Your task to perform on an android device: Open sound settings Image 0: 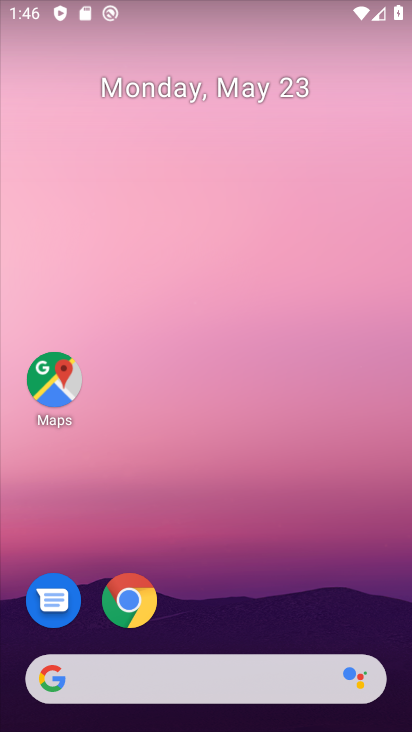
Step 0: drag from (224, 644) to (184, 393)
Your task to perform on an android device: Open sound settings Image 1: 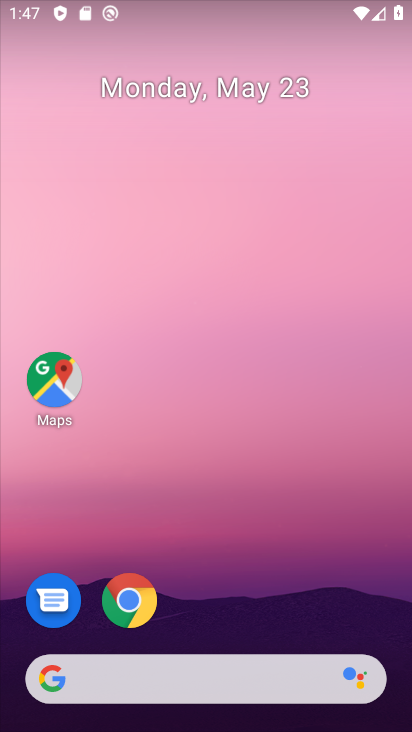
Step 1: drag from (220, 617) to (176, 66)
Your task to perform on an android device: Open sound settings Image 2: 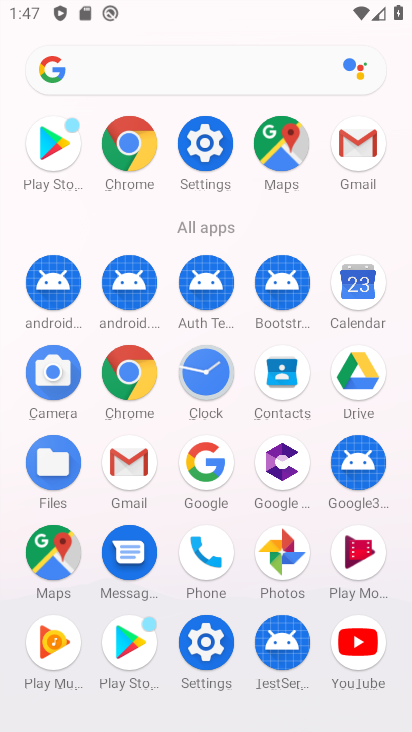
Step 2: click (198, 131)
Your task to perform on an android device: Open sound settings Image 3: 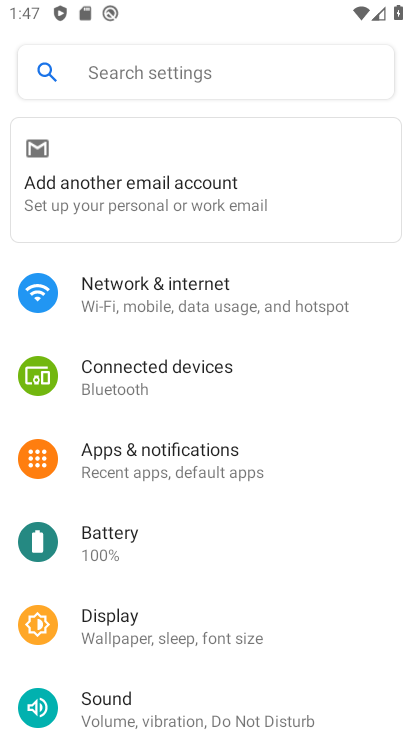
Step 3: drag from (215, 674) to (237, 384)
Your task to perform on an android device: Open sound settings Image 4: 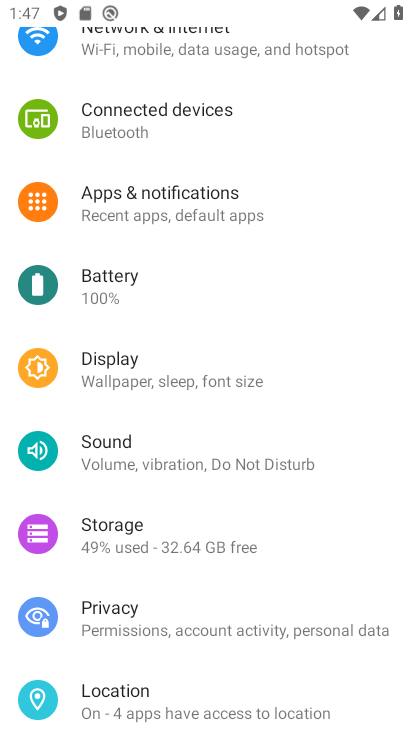
Step 4: click (240, 450)
Your task to perform on an android device: Open sound settings Image 5: 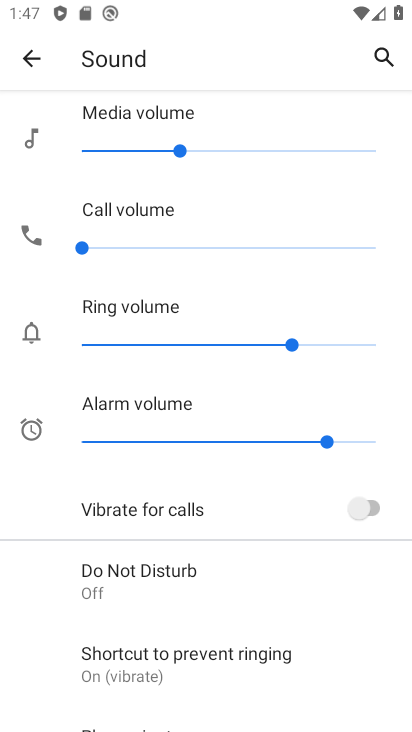
Step 5: task complete